Your task to perform on an android device: toggle pop-ups in chrome Image 0: 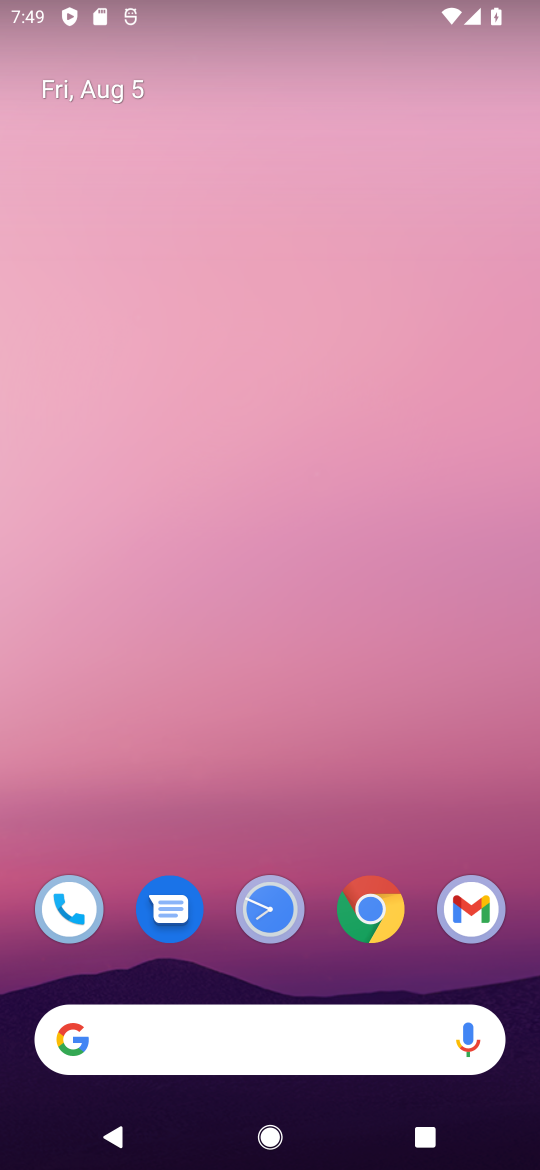
Step 0: click (382, 906)
Your task to perform on an android device: toggle pop-ups in chrome Image 1: 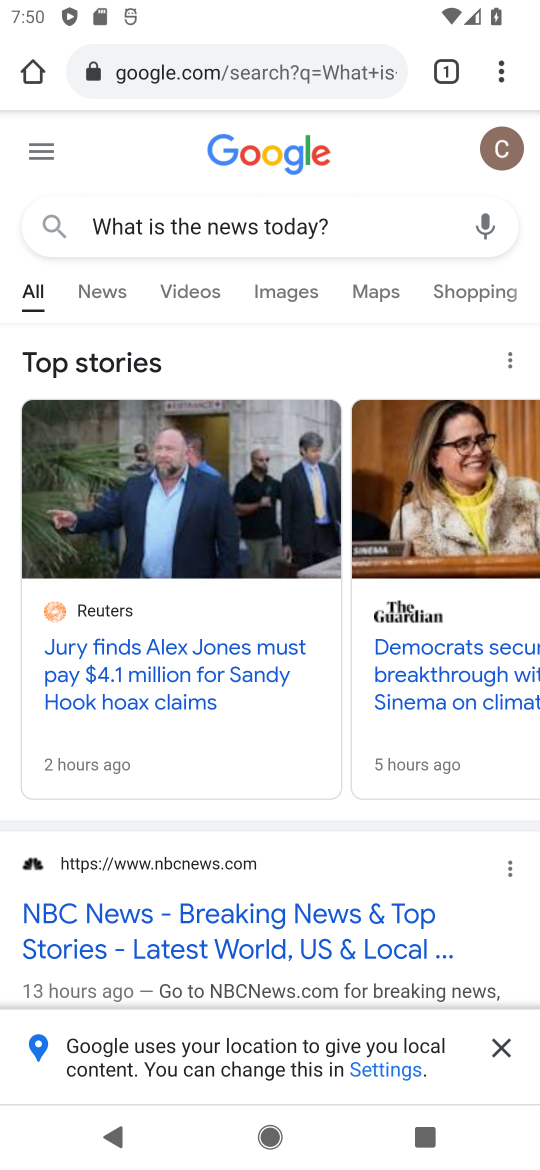
Step 1: click (508, 68)
Your task to perform on an android device: toggle pop-ups in chrome Image 2: 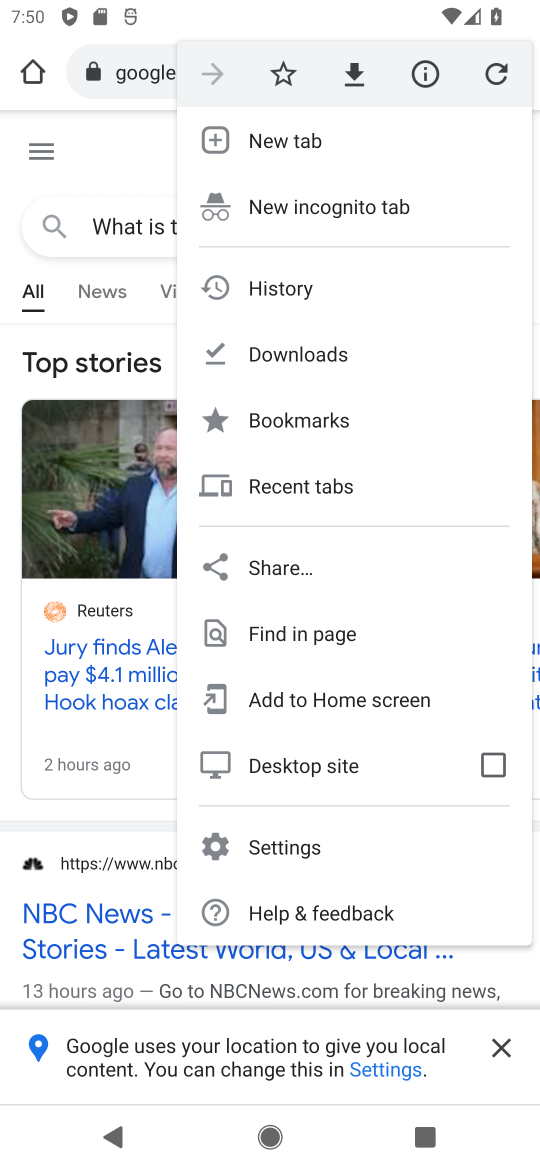
Step 2: click (329, 857)
Your task to perform on an android device: toggle pop-ups in chrome Image 3: 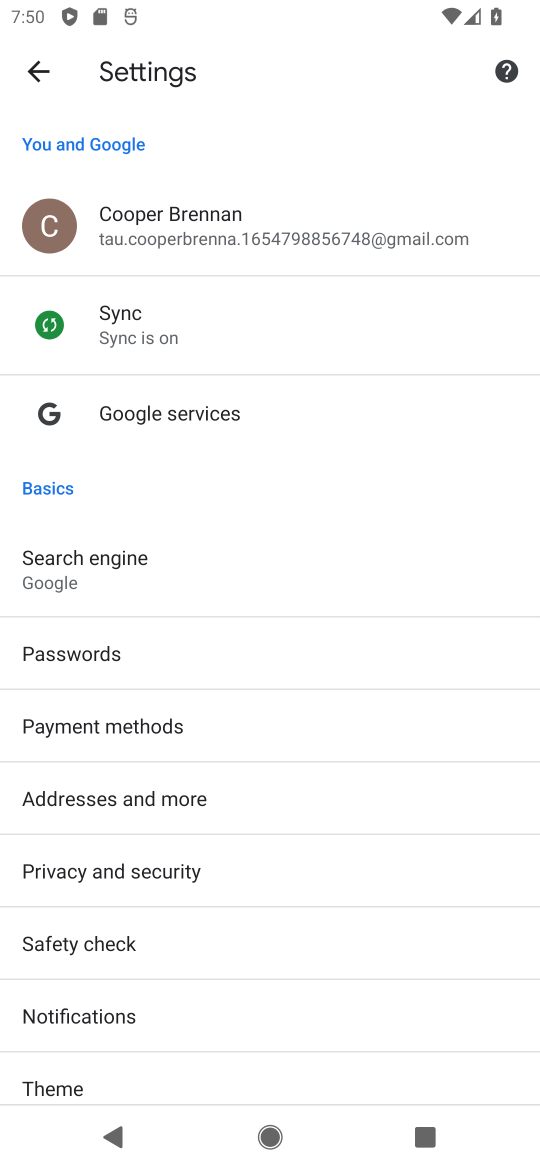
Step 3: drag from (313, 1043) to (325, 511)
Your task to perform on an android device: toggle pop-ups in chrome Image 4: 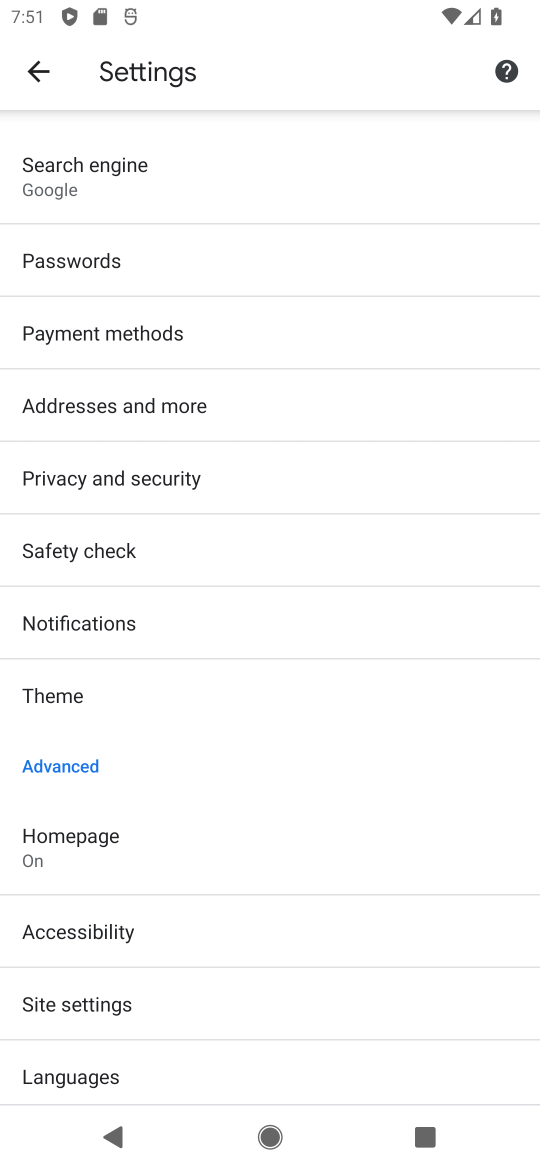
Step 4: click (230, 1015)
Your task to perform on an android device: toggle pop-ups in chrome Image 5: 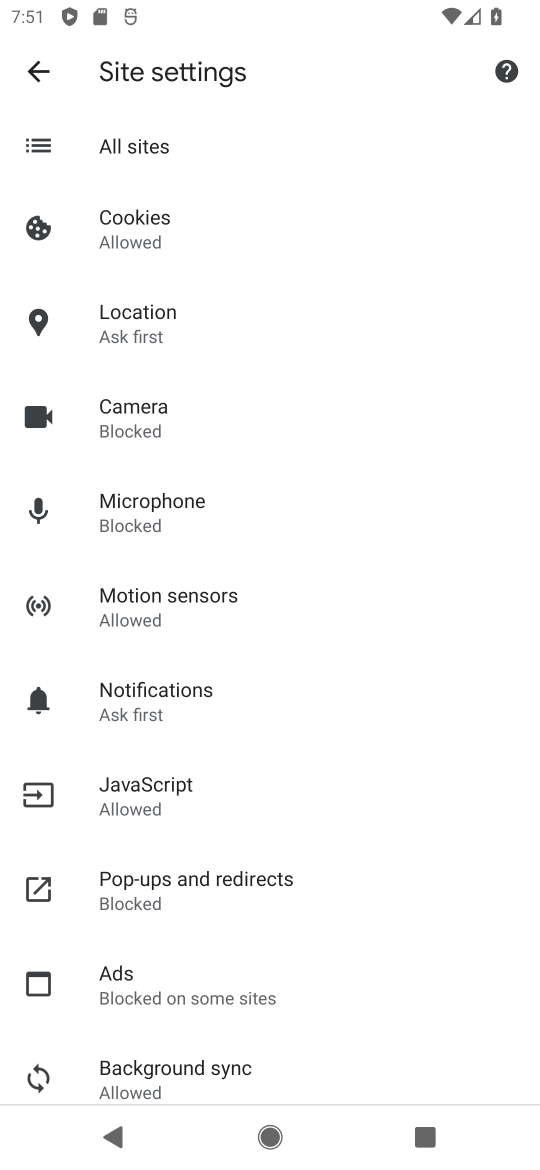
Step 5: click (240, 920)
Your task to perform on an android device: toggle pop-ups in chrome Image 6: 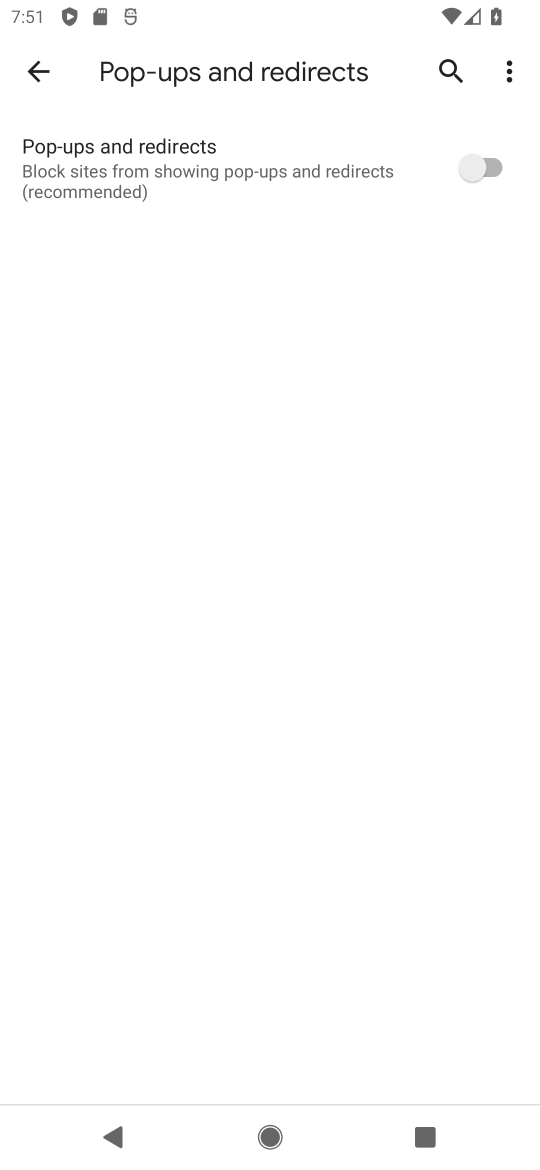
Step 6: click (460, 158)
Your task to perform on an android device: toggle pop-ups in chrome Image 7: 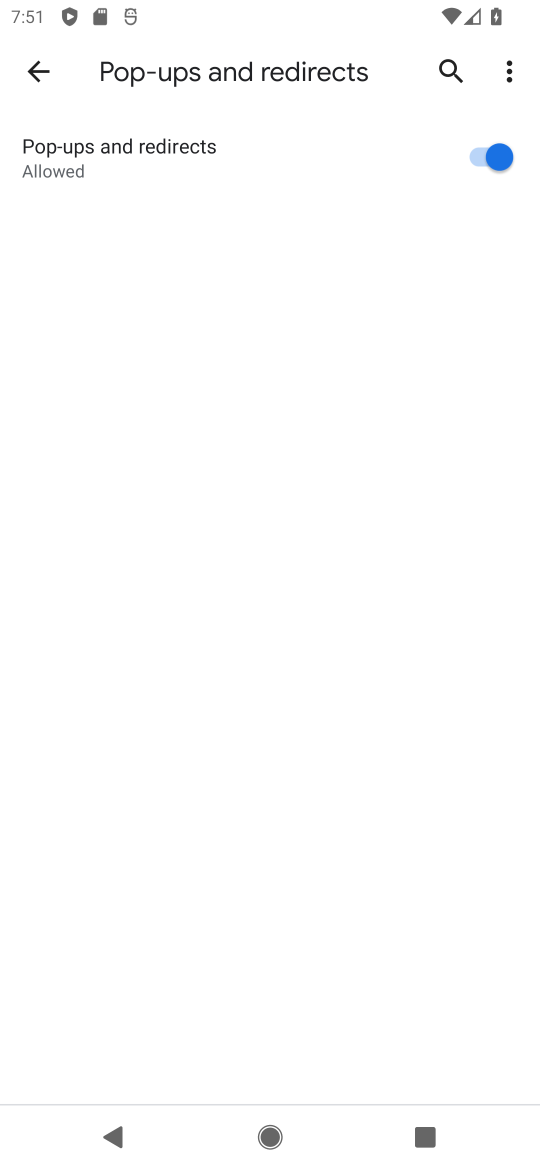
Step 7: task complete